Your task to perform on an android device: toggle pop-ups in chrome Image 0: 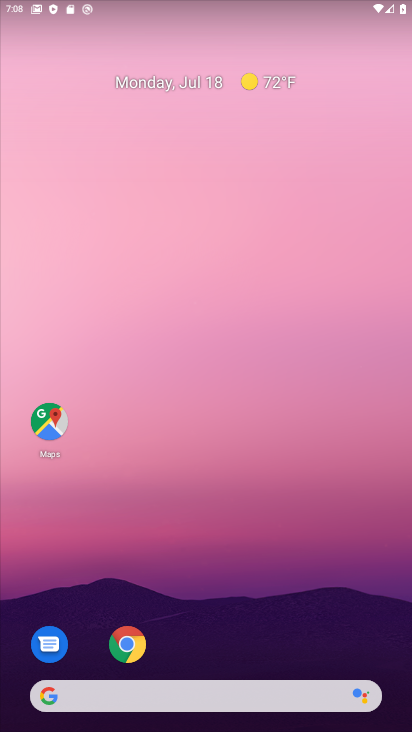
Step 0: drag from (343, 658) to (204, 48)
Your task to perform on an android device: toggle pop-ups in chrome Image 1: 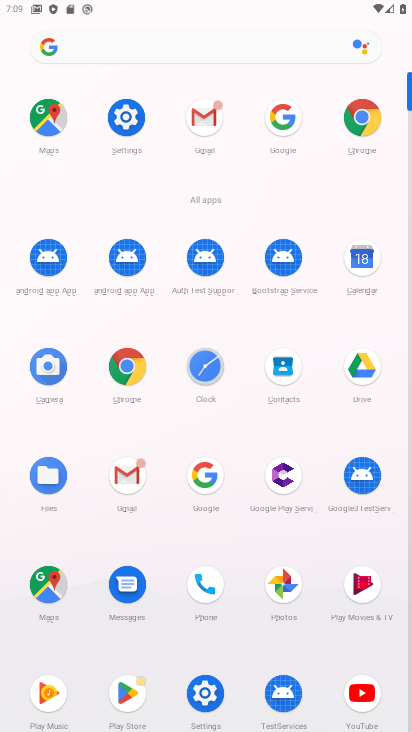
Step 1: click (129, 362)
Your task to perform on an android device: toggle pop-ups in chrome Image 2: 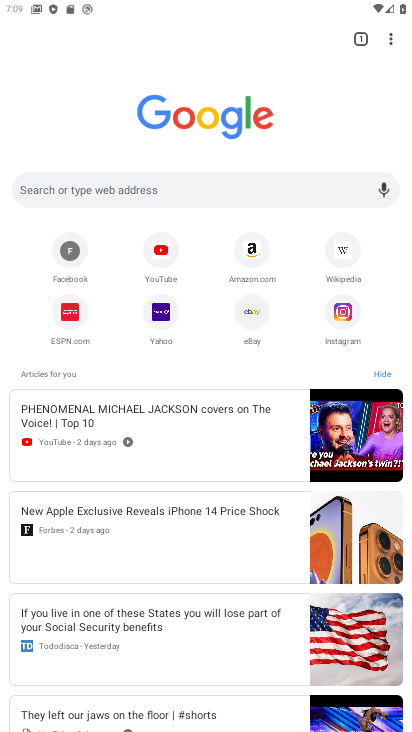
Step 2: click (392, 37)
Your task to perform on an android device: toggle pop-ups in chrome Image 3: 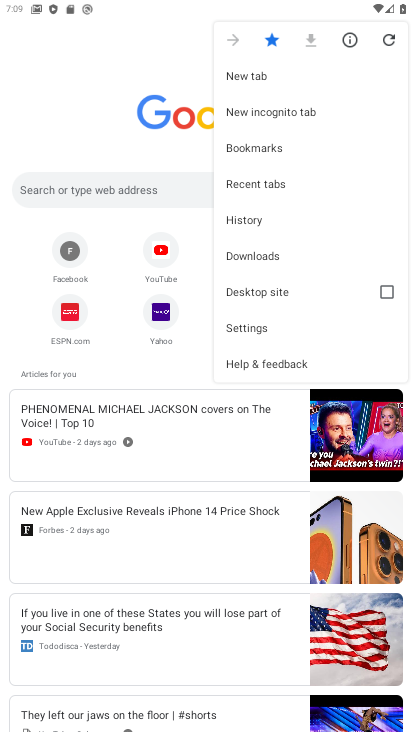
Step 3: click (251, 324)
Your task to perform on an android device: toggle pop-ups in chrome Image 4: 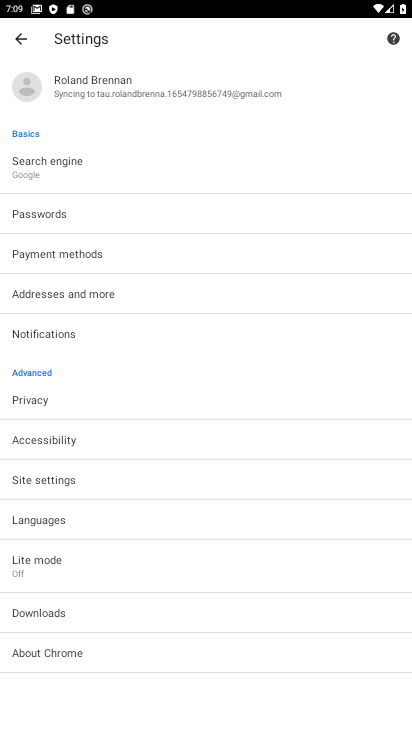
Step 4: click (54, 488)
Your task to perform on an android device: toggle pop-ups in chrome Image 5: 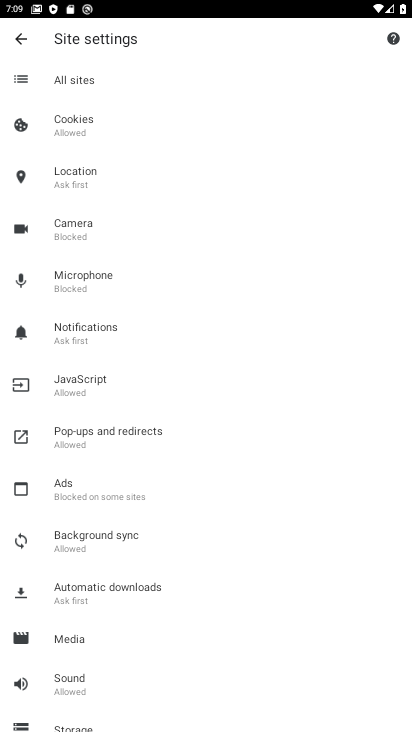
Step 5: click (106, 430)
Your task to perform on an android device: toggle pop-ups in chrome Image 6: 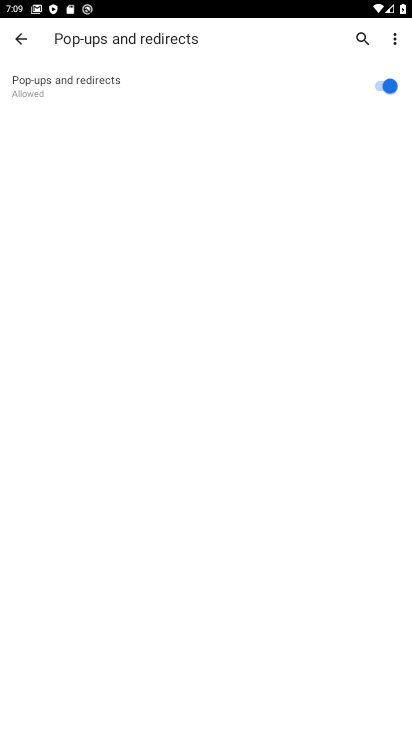
Step 6: click (365, 81)
Your task to perform on an android device: toggle pop-ups in chrome Image 7: 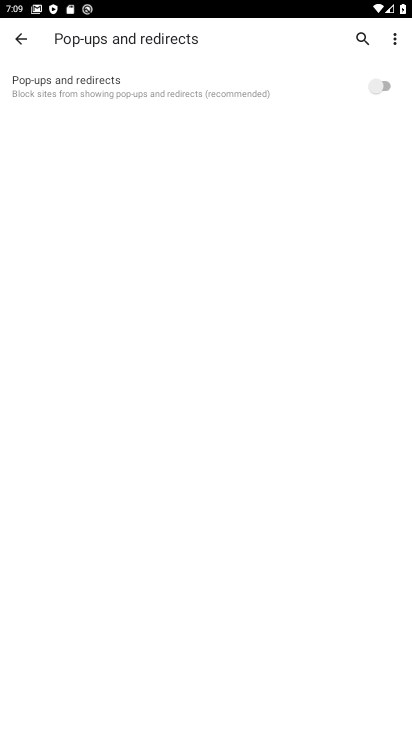
Step 7: task complete